Your task to perform on an android device: Open Chrome and go to settings Image 0: 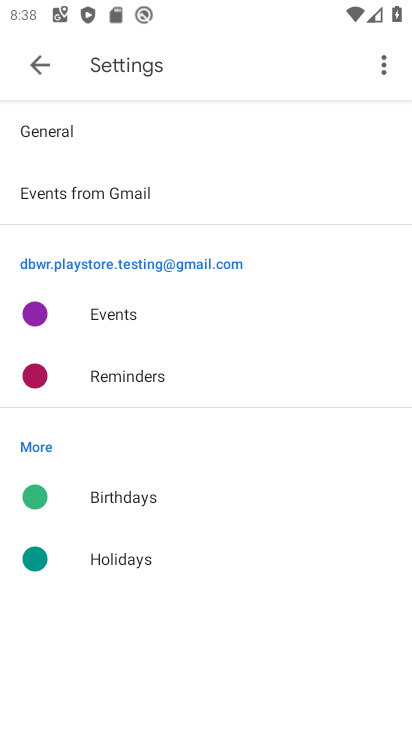
Step 0: press home button
Your task to perform on an android device: Open Chrome and go to settings Image 1: 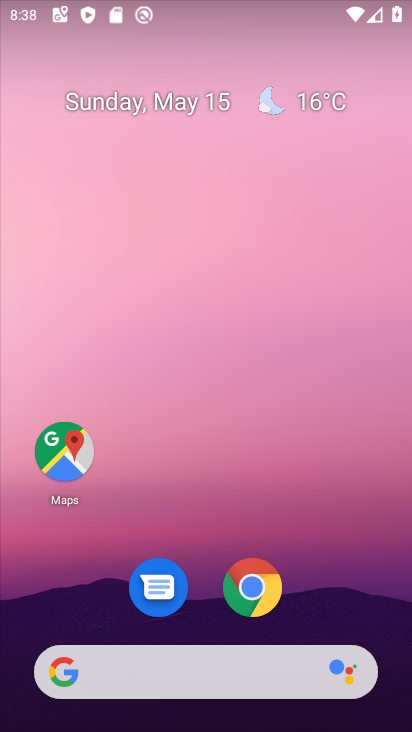
Step 1: click (262, 589)
Your task to perform on an android device: Open Chrome and go to settings Image 2: 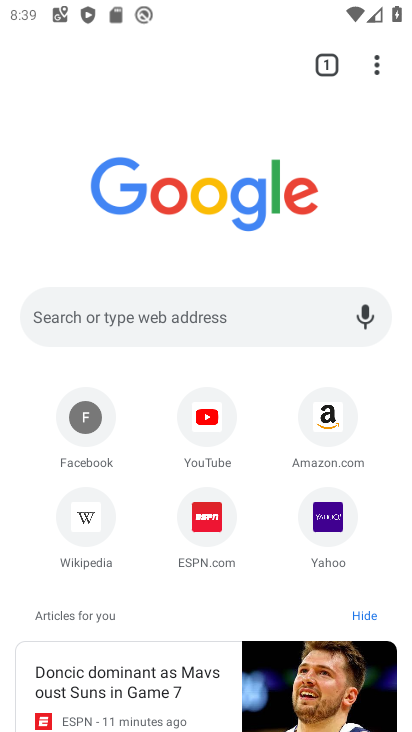
Step 2: click (376, 63)
Your task to perform on an android device: Open Chrome and go to settings Image 3: 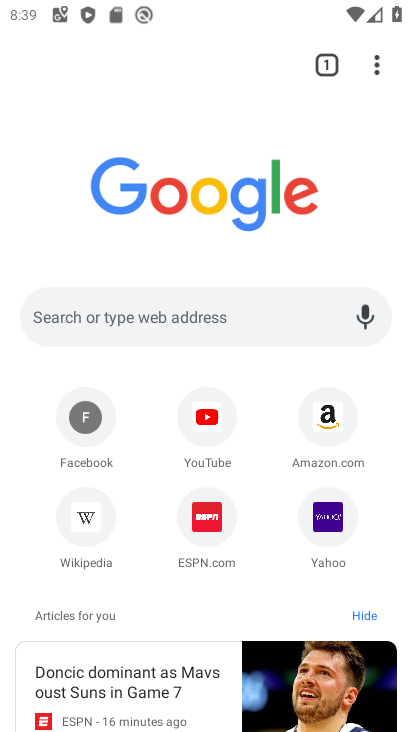
Step 3: task complete